Your task to perform on an android device: Set the phone to "Do not disturb". Image 0: 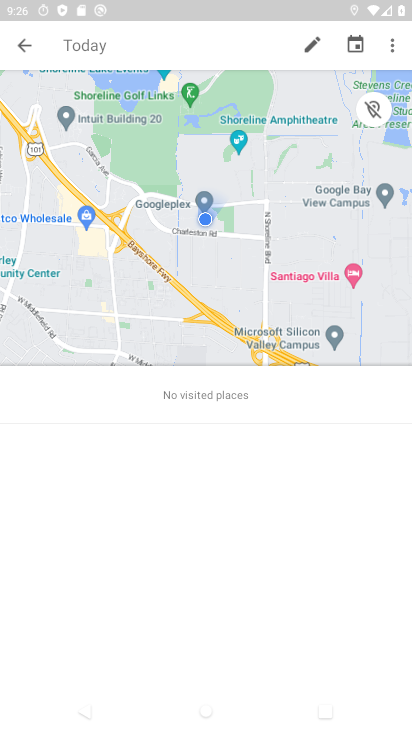
Step 0: press home button
Your task to perform on an android device: Set the phone to "Do not disturb". Image 1: 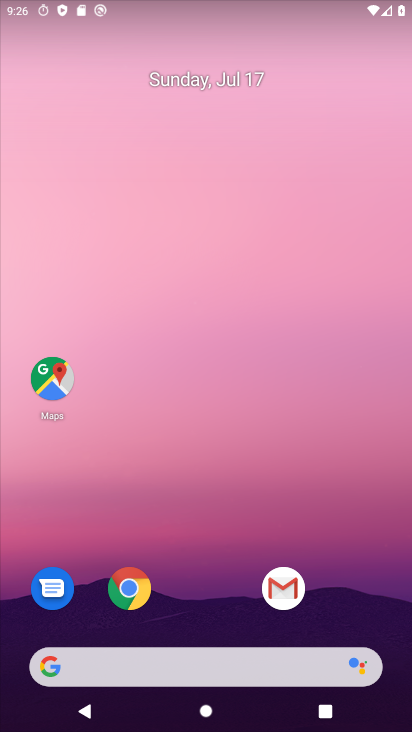
Step 1: drag from (243, 661) to (306, 184)
Your task to perform on an android device: Set the phone to "Do not disturb". Image 2: 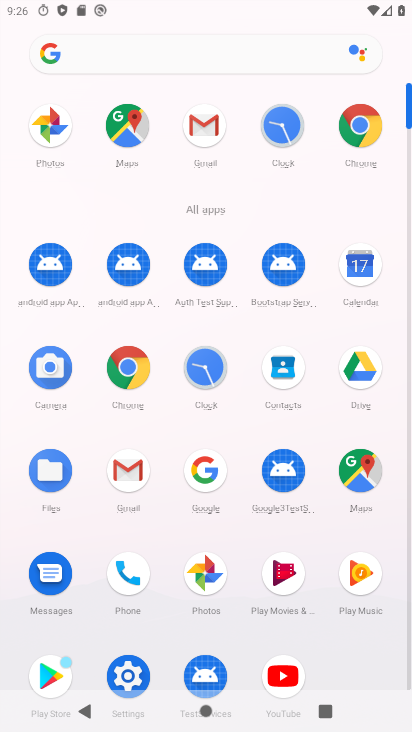
Step 2: click (130, 663)
Your task to perform on an android device: Set the phone to "Do not disturb". Image 3: 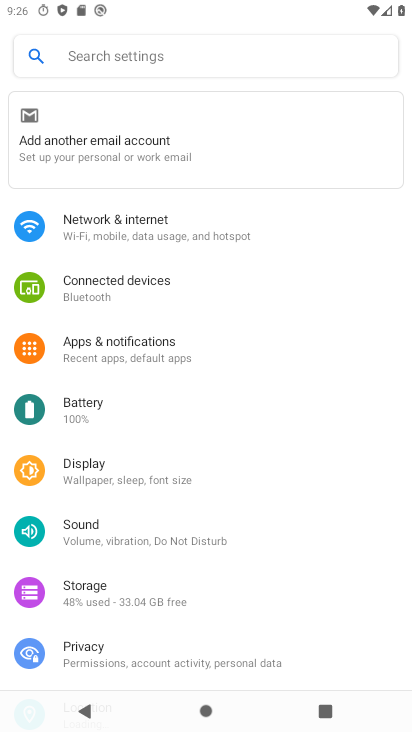
Step 3: click (97, 56)
Your task to perform on an android device: Set the phone to "Do not disturb". Image 4: 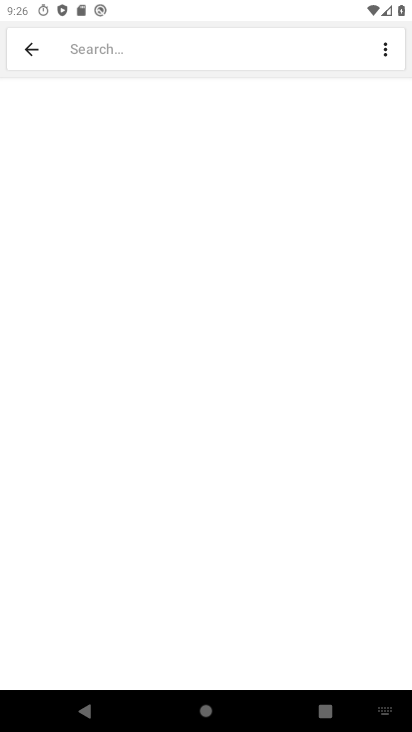
Step 4: drag from (372, 725) to (391, 608)
Your task to perform on an android device: Set the phone to "Do not disturb". Image 5: 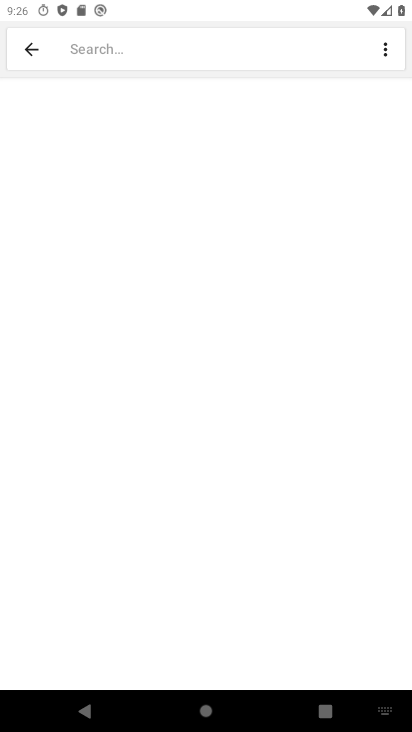
Step 5: drag from (383, 717) to (384, 674)
Your task to perform on an android device: Set the phone to "Do not disturb". Image 6: 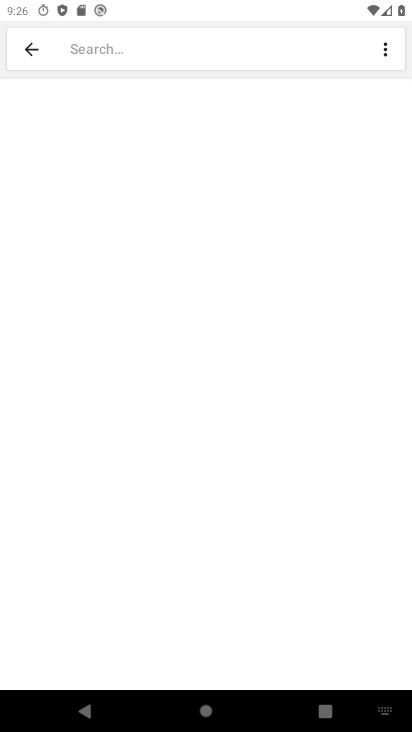
Step 6: click (388, 720)
Your task to perform on an android device: Set the phone to "Do not disturb". Image 7: 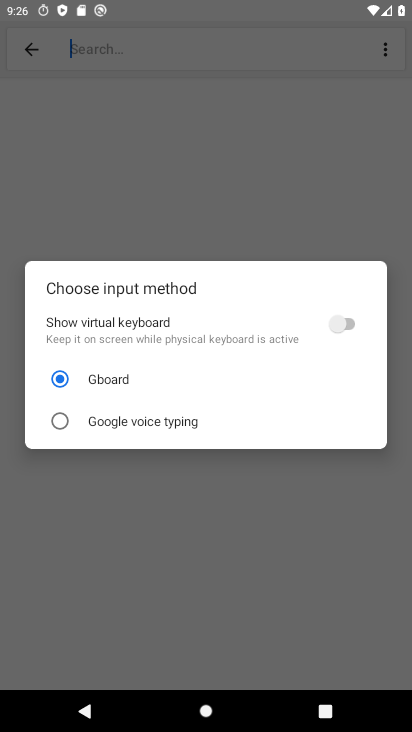
Step 7: click (340, 322)
Your task to perform on an android device: Set the phone to "Do not disturb". Image 8: 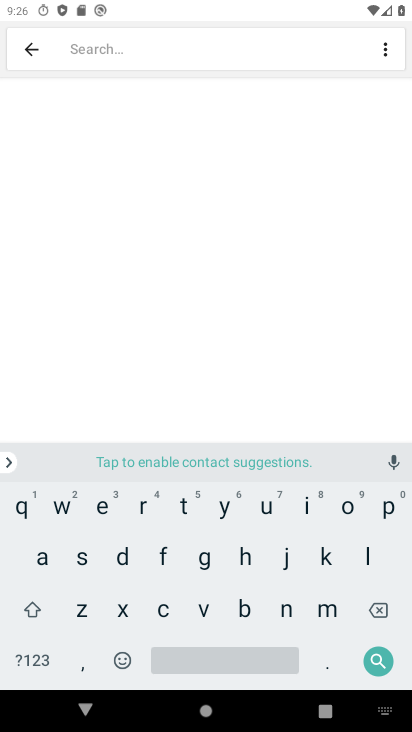
Step 8: click (116, 561)
Your task to perform on an android device: Set the phone to "Do not disturb". Image 9: 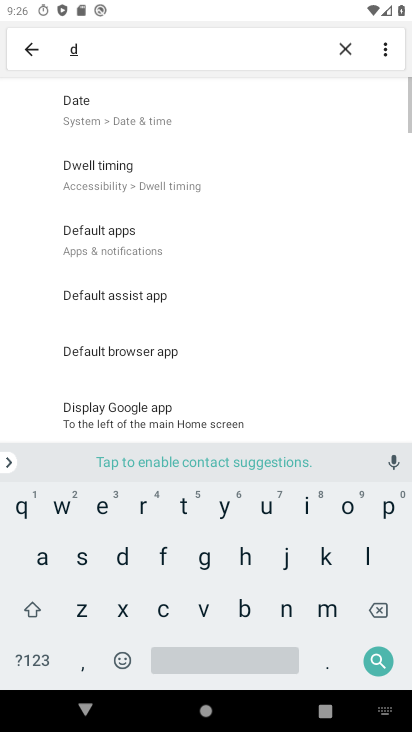
Step 9: click (285, 614)
Your task to perform on an android device: Set the phone to "Do not disturb". Image 10: 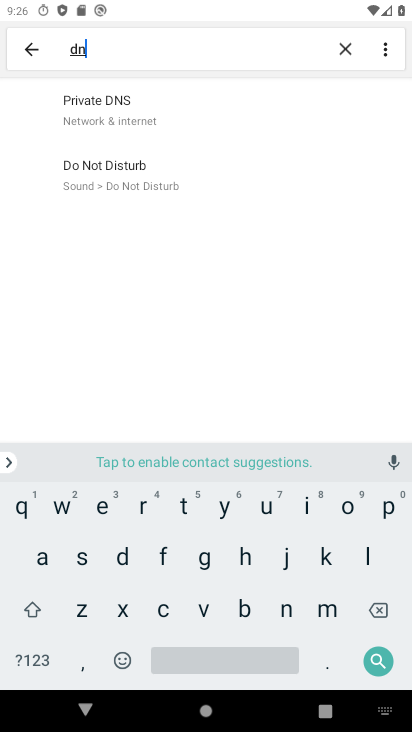
Step 10: click (119, 559)
Your task to perform on an android device: Set the phone to "Do not disturb". Image 11: 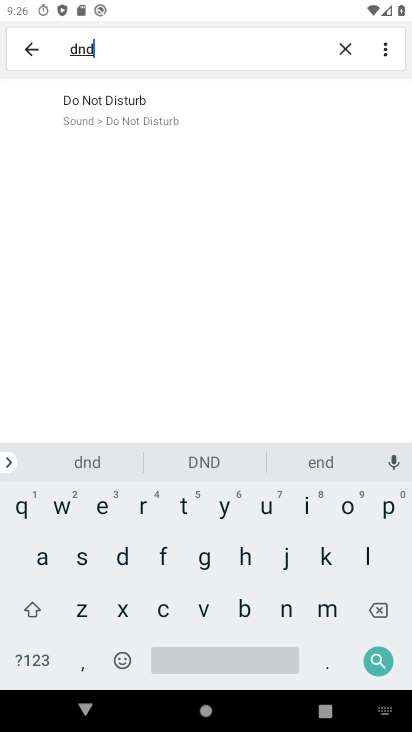
Step 11: click (149, 110)
Your task to perform on an android device: Set the phone to "Do not disturb". Image 12: 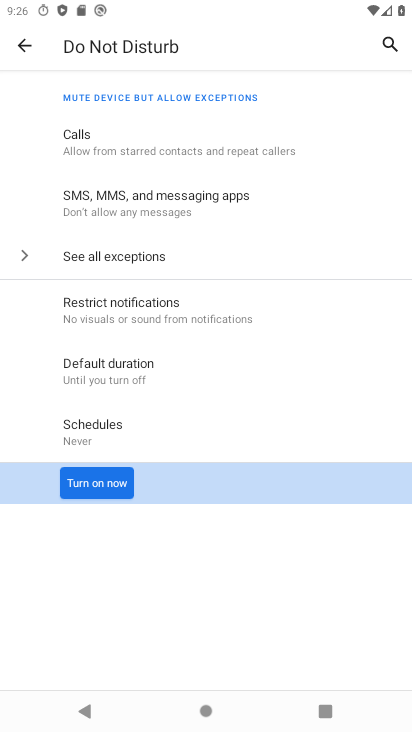
Step 12: click (101, 480)
Your task to perform on an android device: Set the phone to "Do not disturb". Image 13: 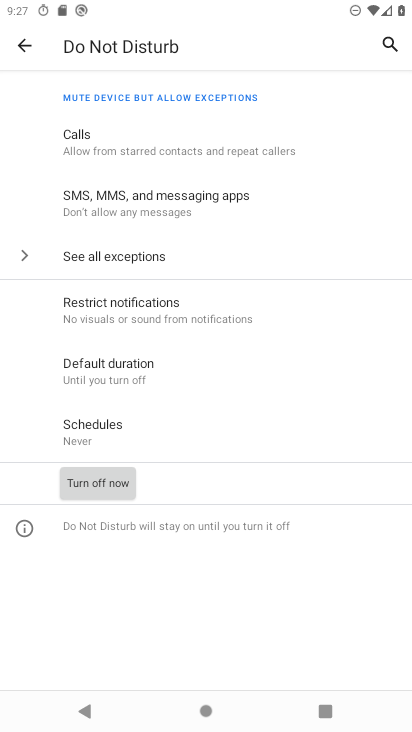
Step 13: task complete